Your task to perform on an android device: How do I get to the nearest Nordstrom? Image 0: 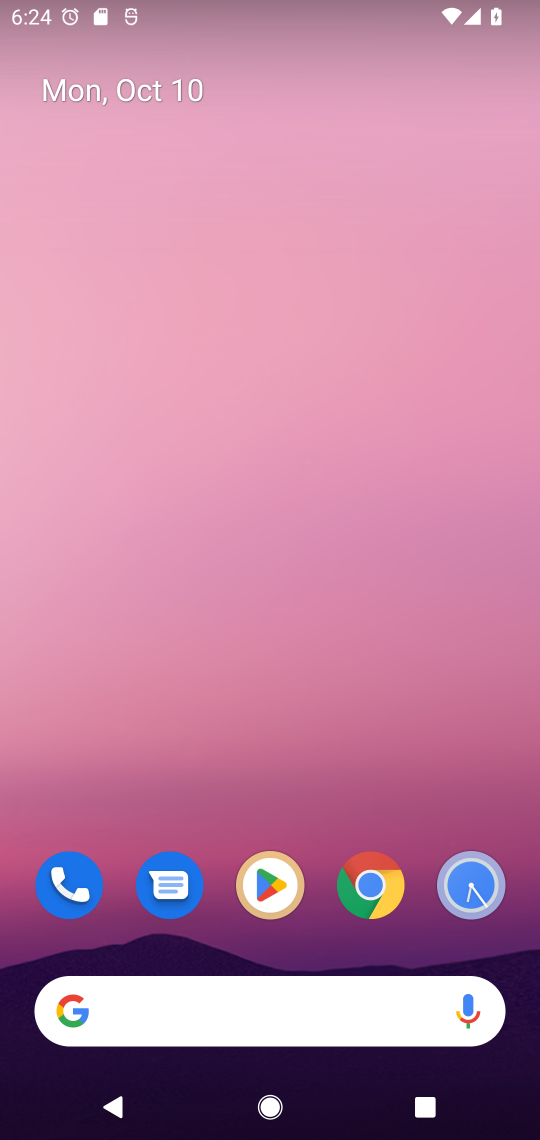
Step 0: drag from (322, 905) to (373, 282)
Your task to perform on an android device: How do I get to the nearest Nordstrom? Image 1: 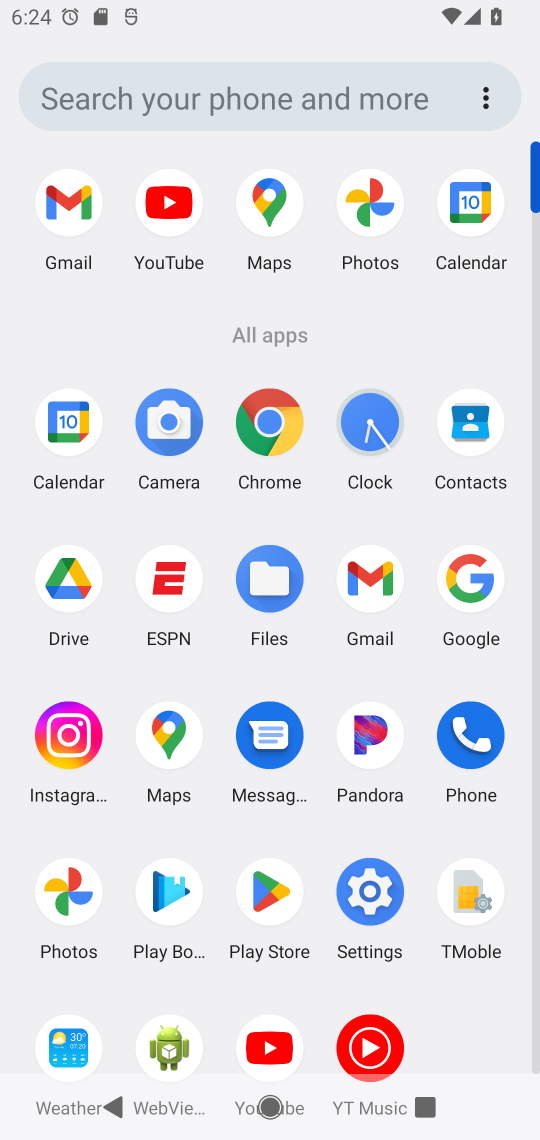
Step 1: click (273, 215)
Your task to perform on an android device: How do I get to the nearest Nordstrom? Image 2: 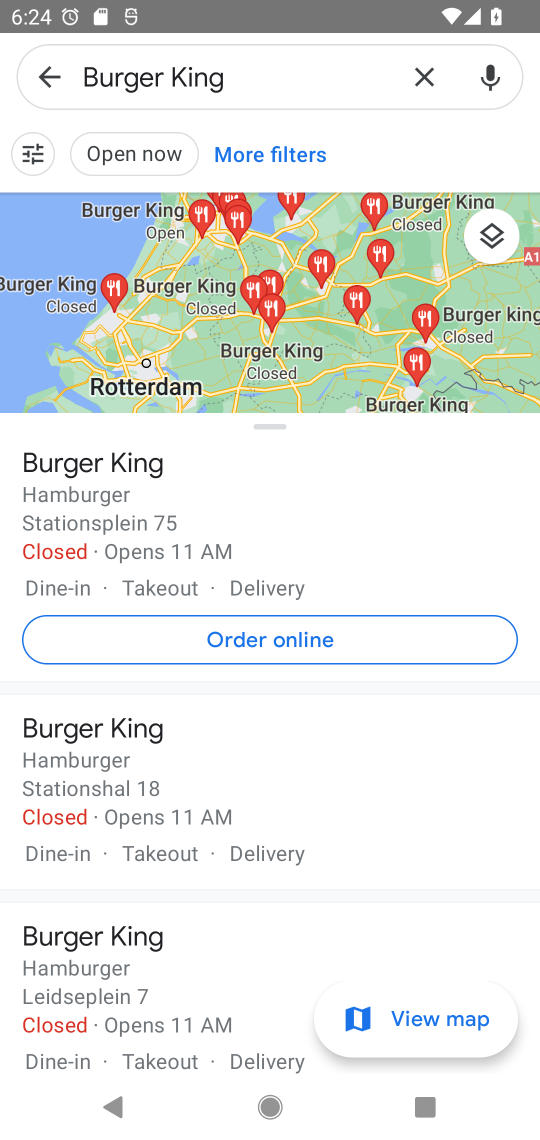
Step 2: click (427, 78)
Your task to perform on an android device: How do I get to the nearest Nordstrom? Image 3: 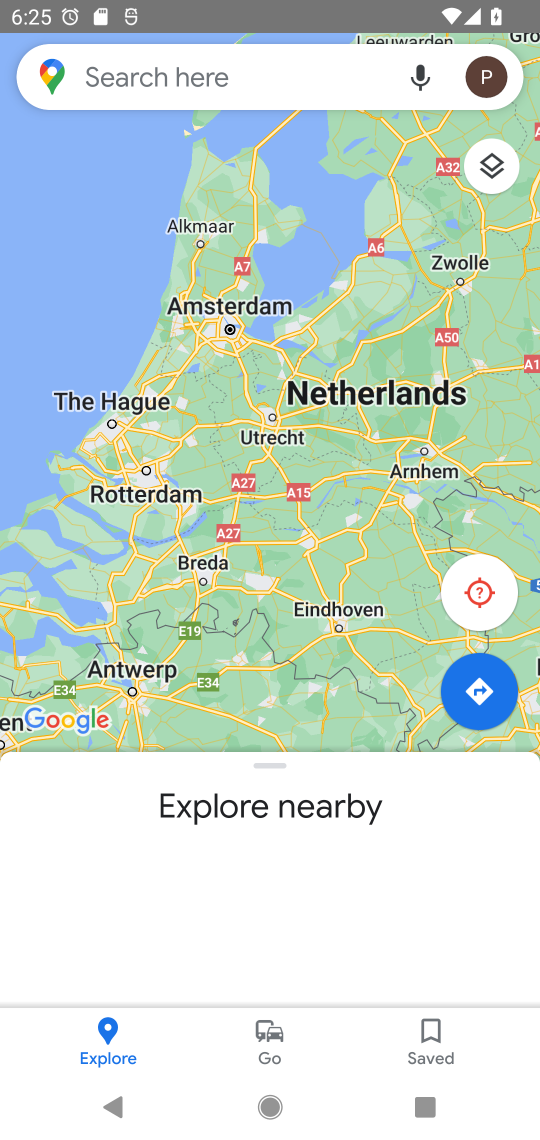
Step 3: type "Nordstrom"
Your task to perform on an android device: How do I get to the nearest Nordstrom? Image 4: 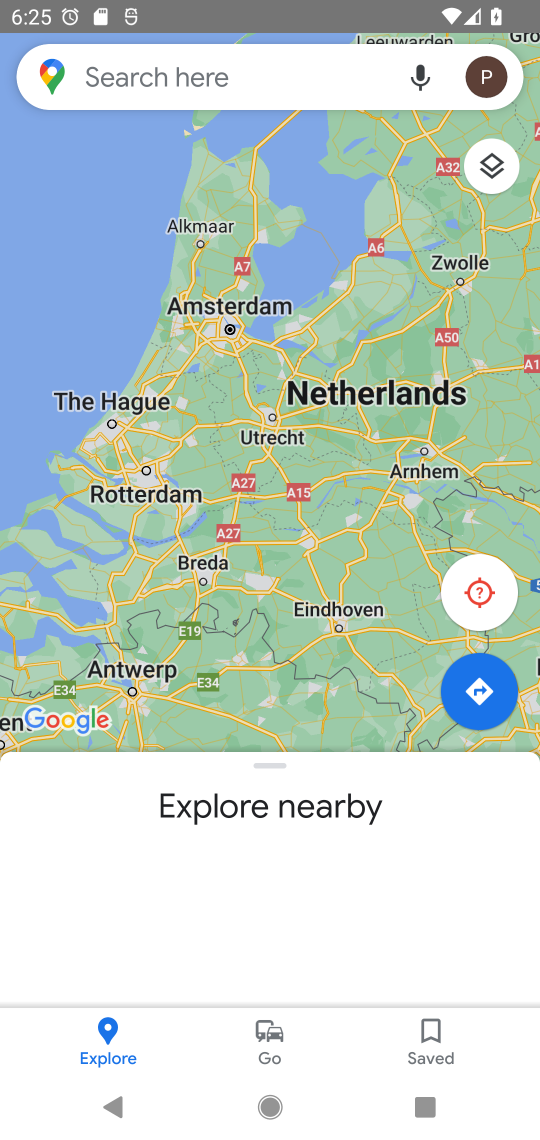
Step 4: type "Nordstrom"
Your task to perform on an android device: How do I get to the nearest Nordstrom? Image 5: 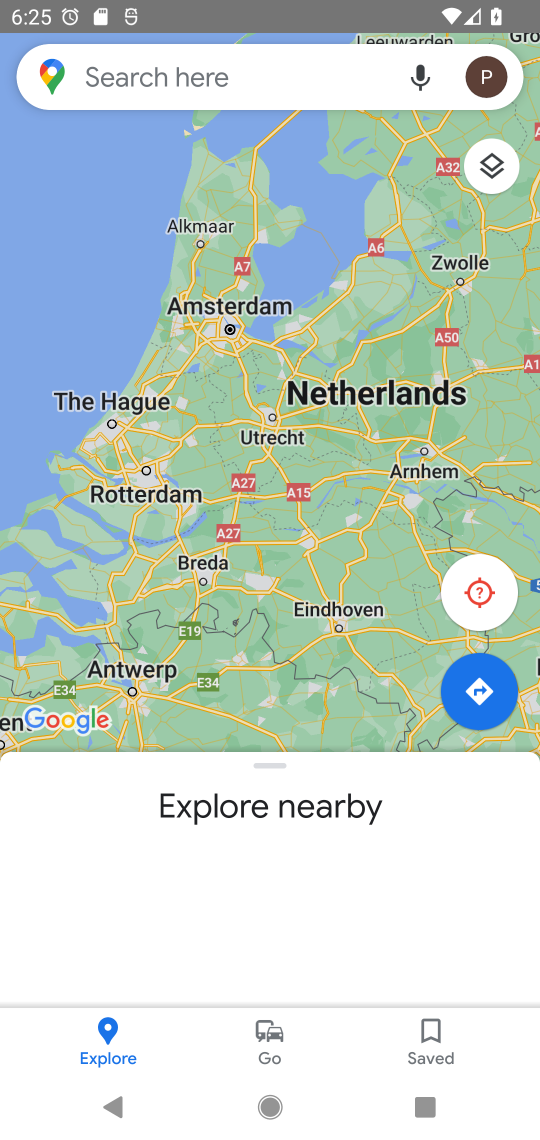
Step 5: type "Nordstrom"
Your task to perform on an android device: How do I get to the nearest Nordstrom? Image 6: 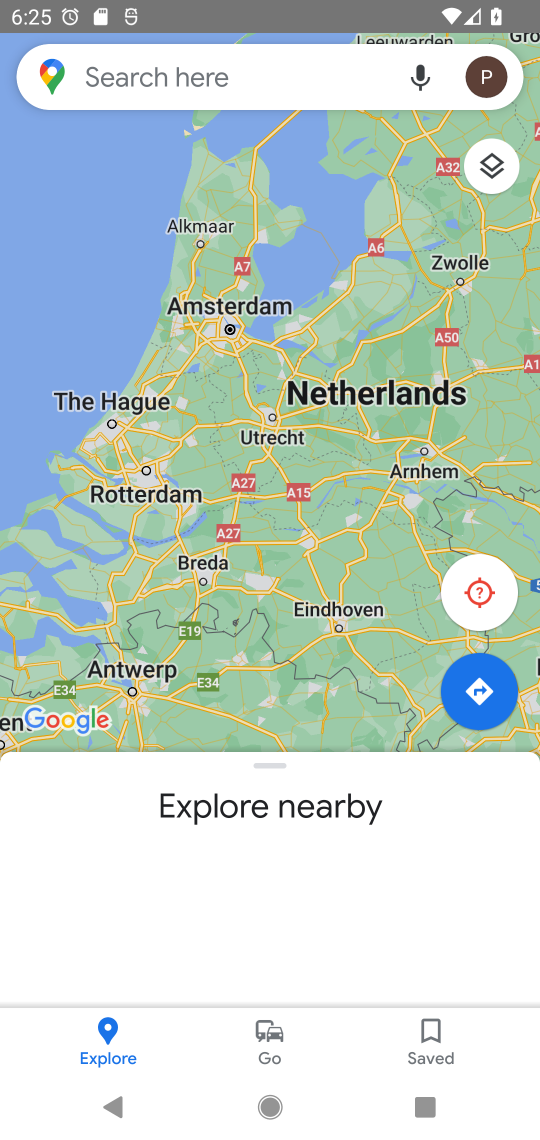
Step 6: type ""
Your task to perform on an android device: How do I get to the nearest Nordstrom? Image 7: 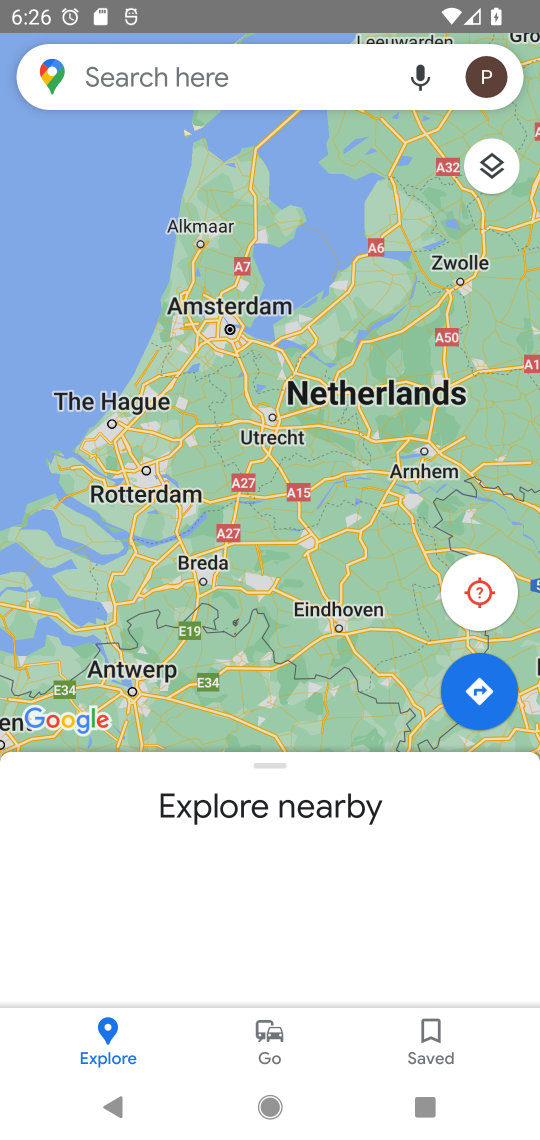
Step 7: press enter
Your task to perform on an android device: How do I get to the nearest Nordstrom? Image 8: 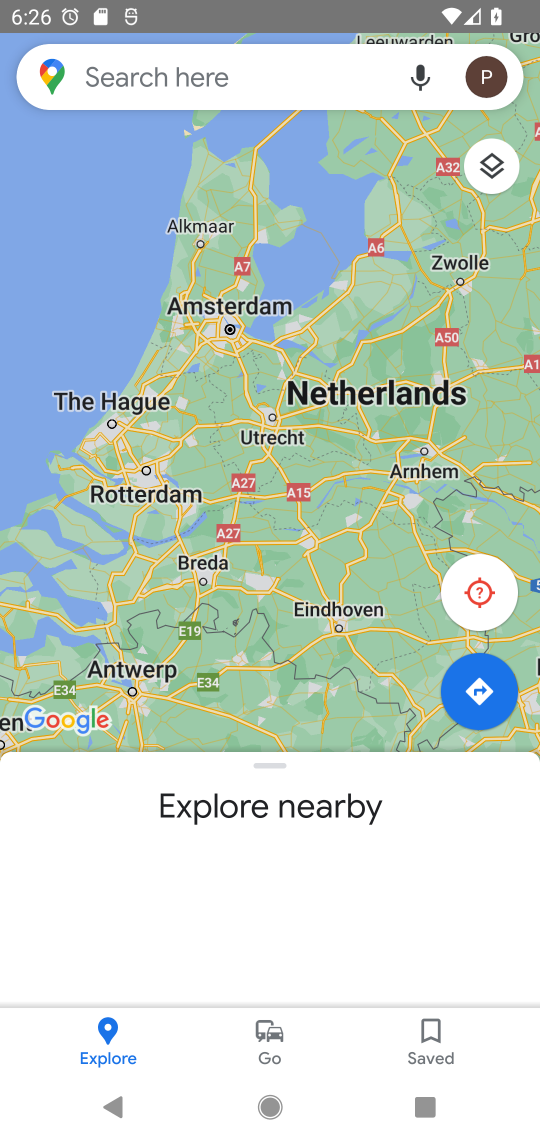
Step 8: click (221, 80)
Your task to perform on an android device: How do I get to the nearest Nordstrom? Image 9: 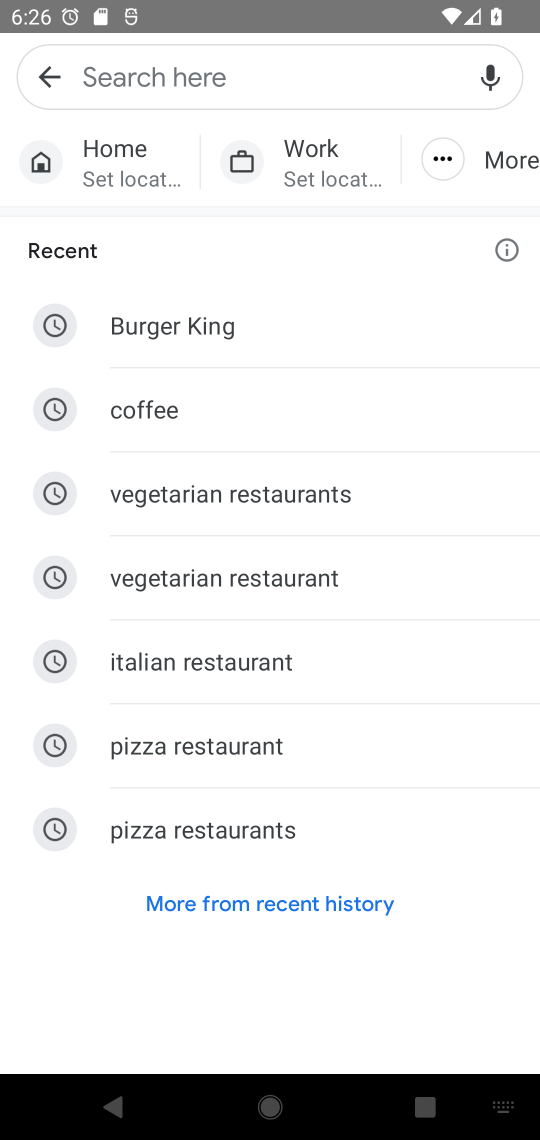
Step 9: type "Nordstrom"
Your task to perform on an android device: How do I get to the nearest Nordstrom? Image 10: 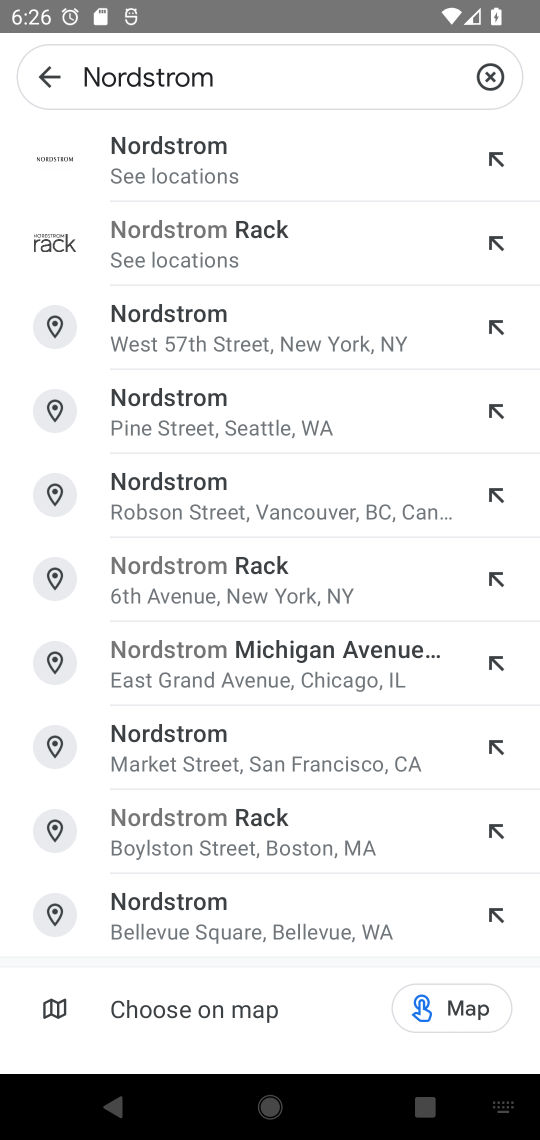
Step 10: click (244, 140)
Your task to perform on an android device: How do I get to the nearest Nordstrom? Image 11: 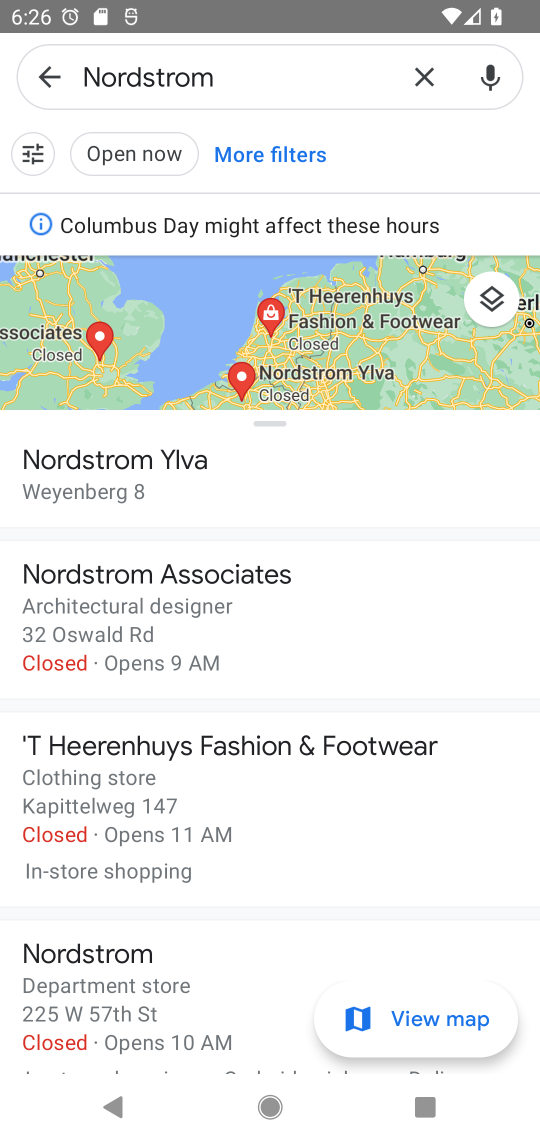
Step 11: task complete